Your task to perform on an android device: change the clock display to show seconds Image 0: 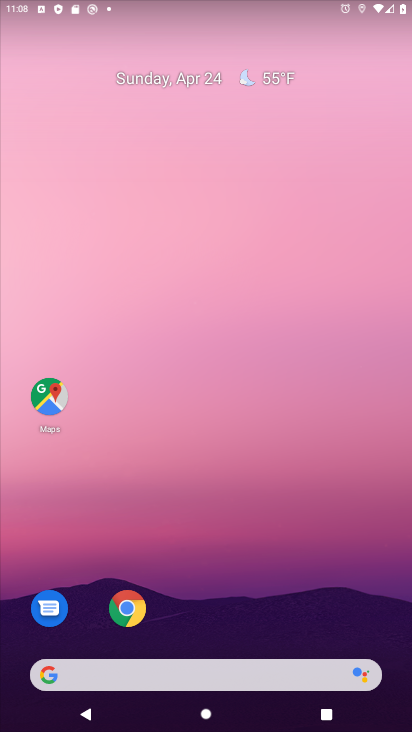
Step 0: drag from (378, 628) to (311, 59)
Your task to perform on an android device: change the clock display to show seconds Image 1: 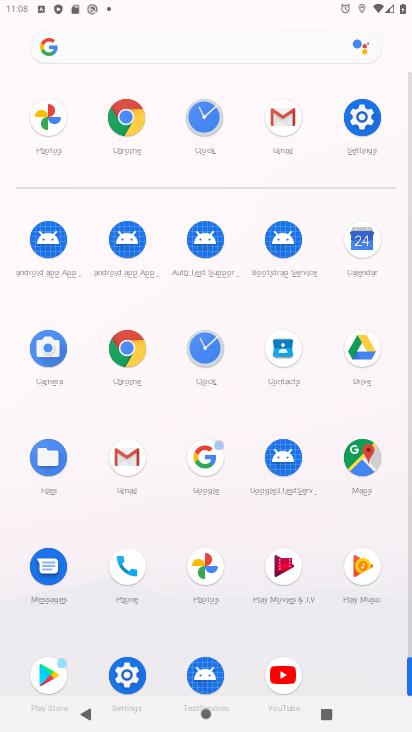
Step 1: click (204, 343)
Your task to perform on an android device: change the clock display to show seconds Image 2: 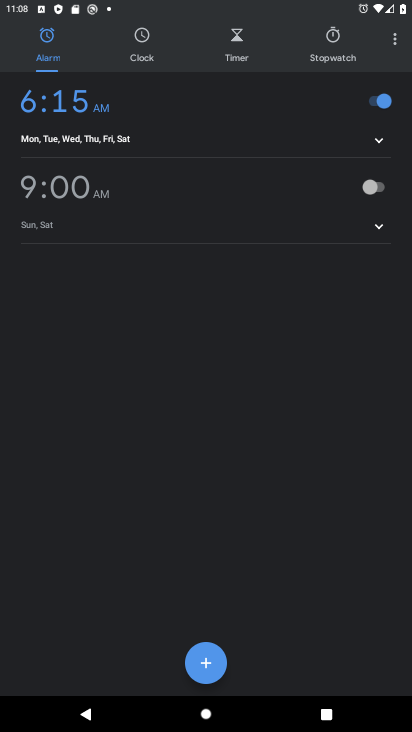
Step 2: click (393, 38)
Your task to perform on an android device: change the clock display to show seconds Image 3: 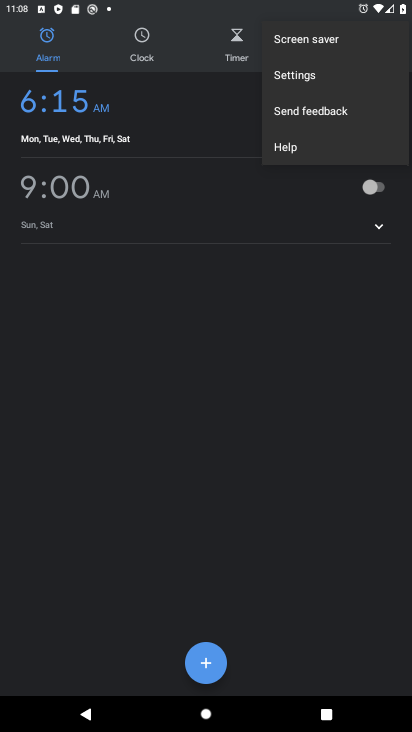
Step 3: click (290, 74)
Your task to perform on an android device: change the clock display to show seconds Image 4: 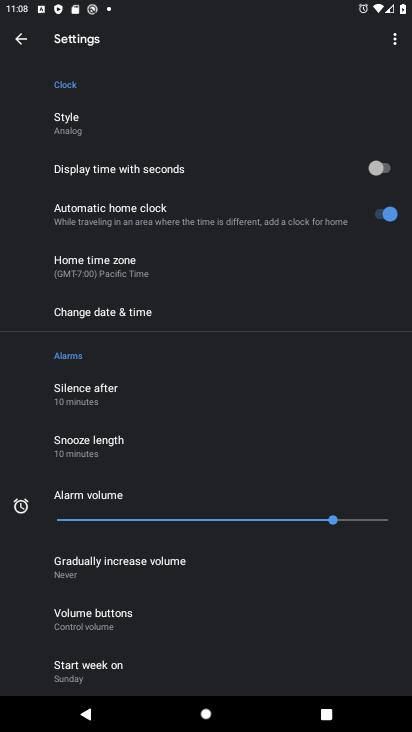
Step 4: click (386, 170)
Your task to perform on an android device: change the clock display to show seconds Image 5: 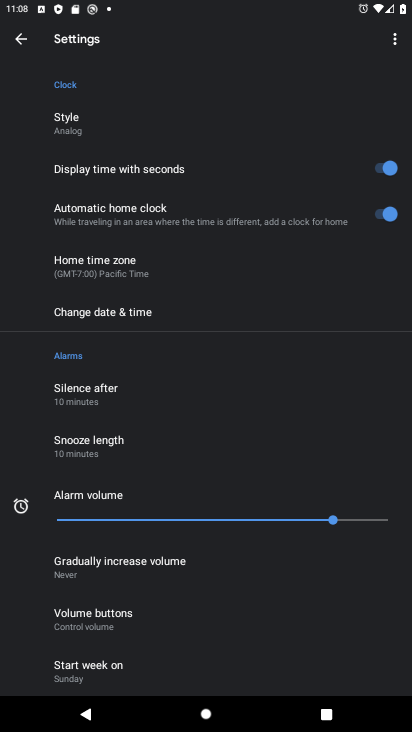
Step 5: task complete